Your task to perform on an android device: add a contact Image 0: 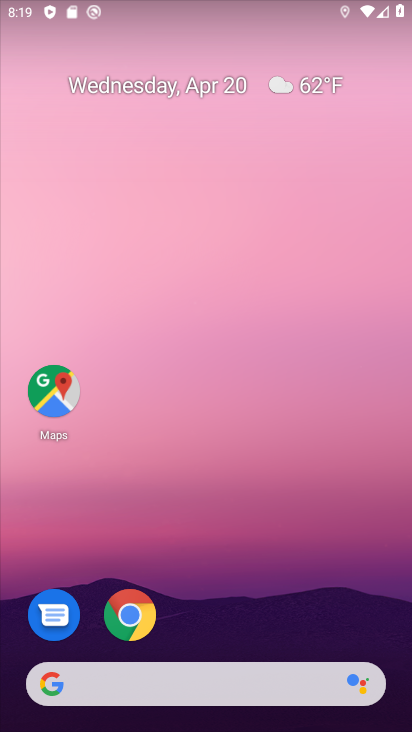
Step 0: drag from (251, 692) to (224, 136)
Your task to perform on an android device: add a contact Image 1: 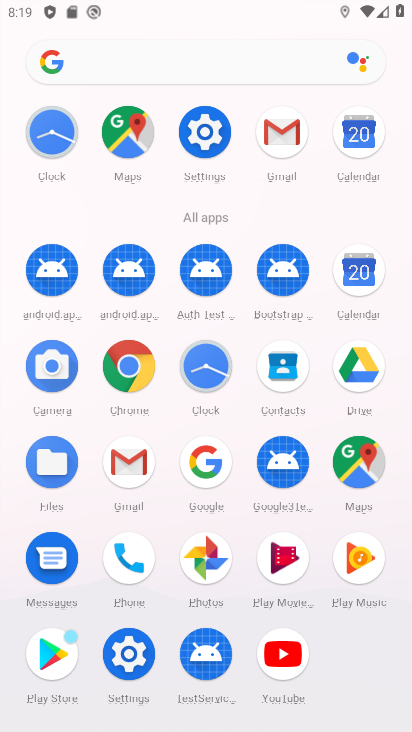
Step 1: drag from (275, 635) to (351, 348)
Your task to perform on an android device: add a contact Image 2: 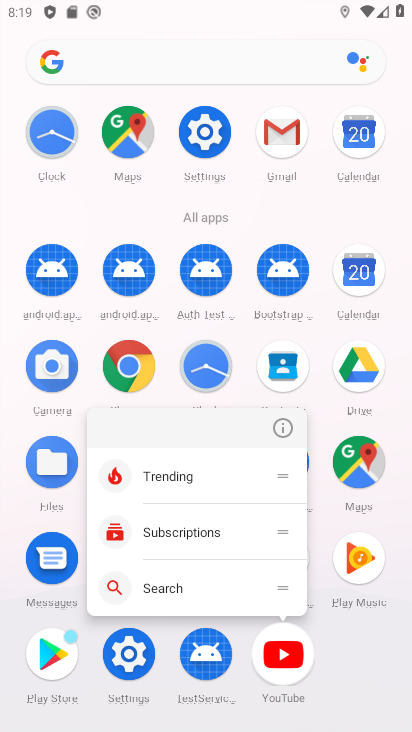
Step 2: click (300, 356)
Your task to perform on an android device: add a contact Image 3: 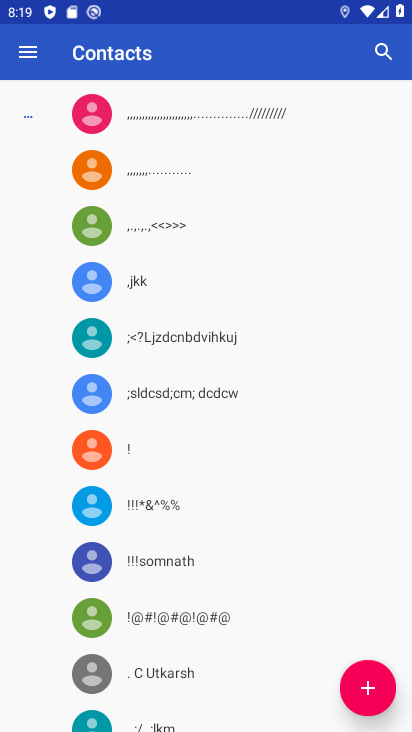
Step 3: click (354, 694)
Your task to perform on an android device: add a contact Image 4: 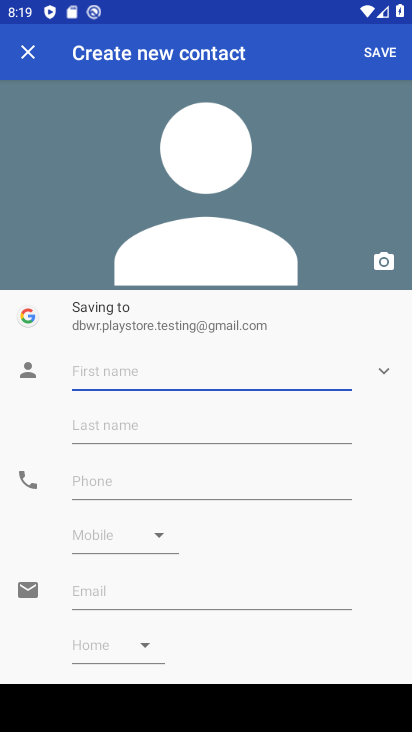
Step 4: type "rdf"
Your task to perform on an android device: add a contact Image 5: 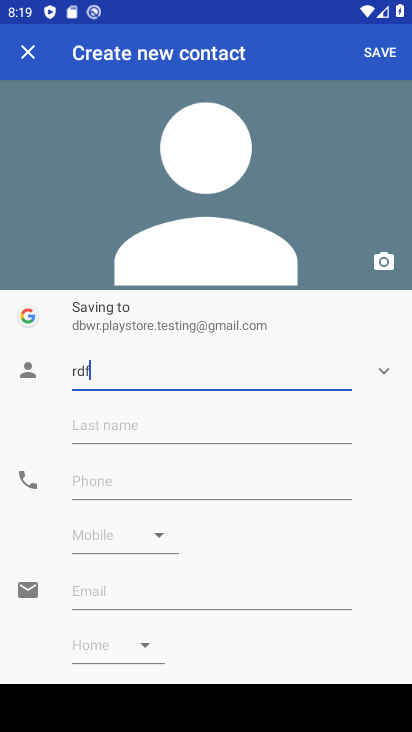
Step 5: type ""
Your task to perform on an android device: add a contact Image 6: 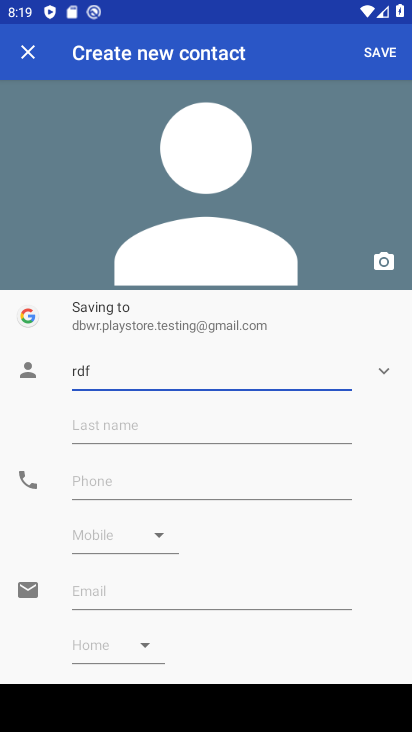
Step 6: click (269, 437)
Your task to perform on an android device: add a contact Image 7: 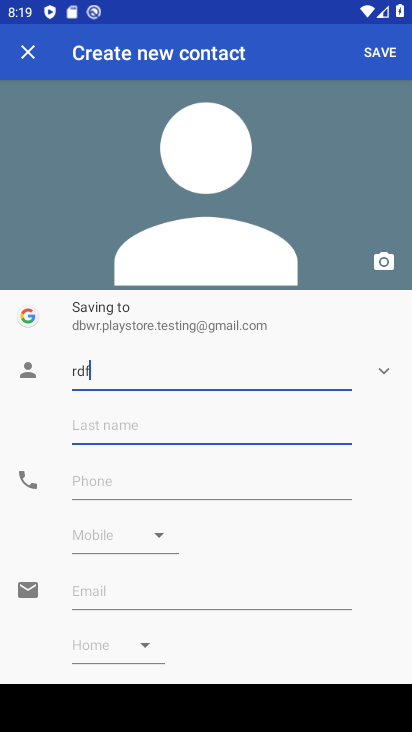
Step 7: click (272, 425)
Your task to perform on an android device: add a contact Image 8: 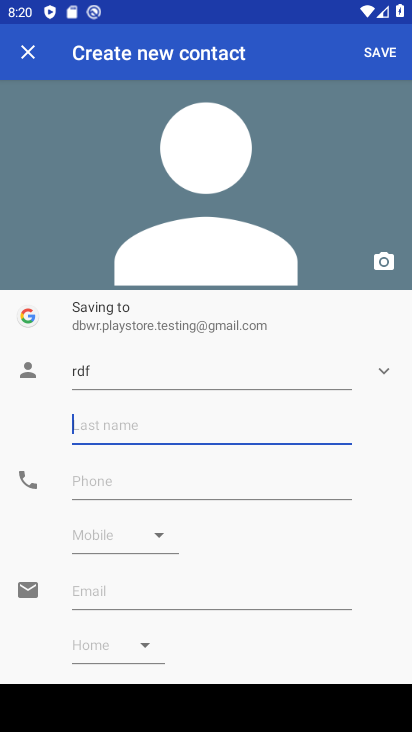
Step 8: type "ded"
Your task to perform on an android device: add a contact Image 9: 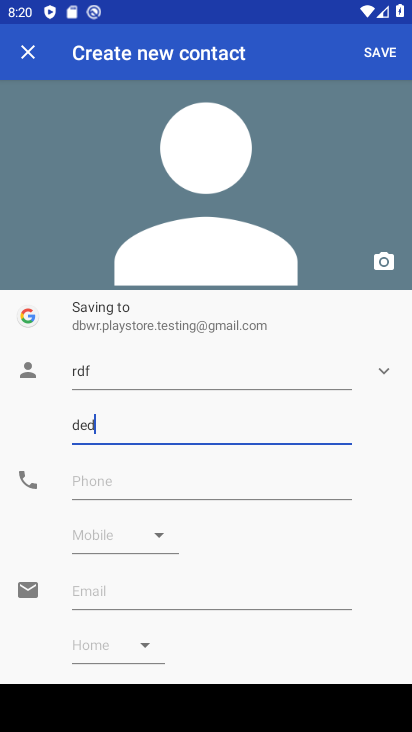
Step 9: type ""
Your task to perform on an android device: add a contact Image 10: 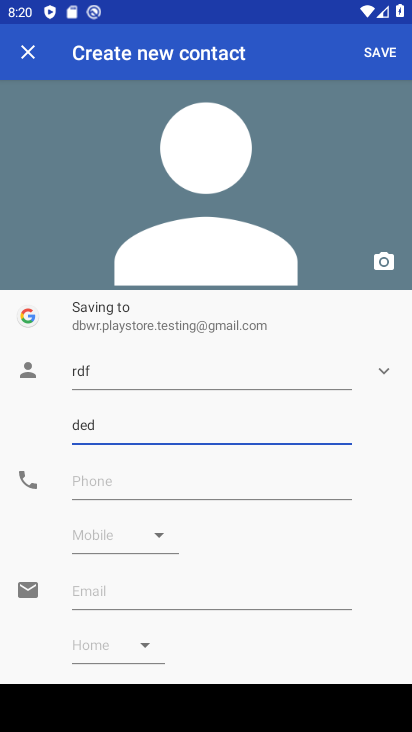
Step 10: click (266, 481)
Your task to perform on an android device: add a contact Image 11: 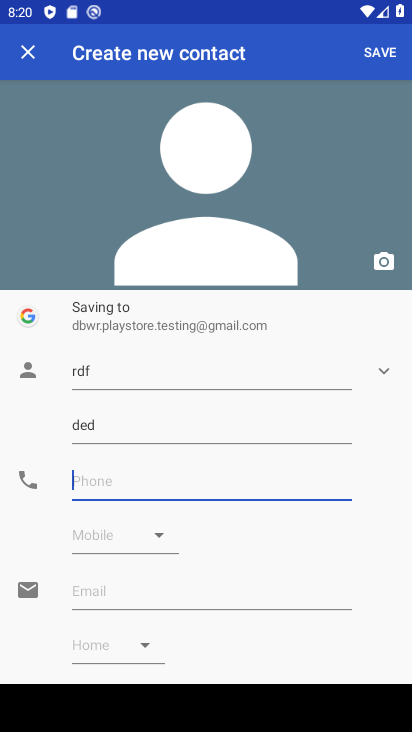
Step 11: type "43232245"
Your task to perform on an android device: add a contact Image 12: 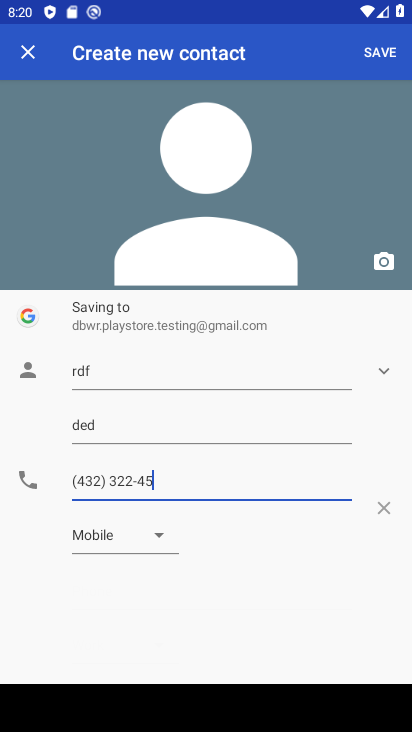
Step 12: type ""
Your task to perform on an android device: add a contact Image 13: 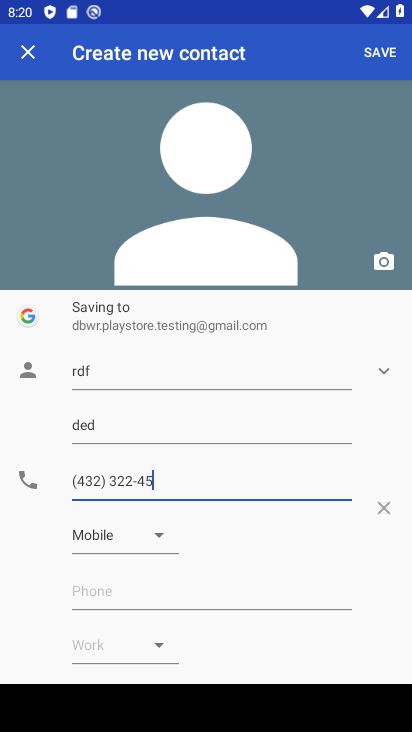
Step 13: click (391, 53)
Your task to perform on an android device: add a contact Image 14: 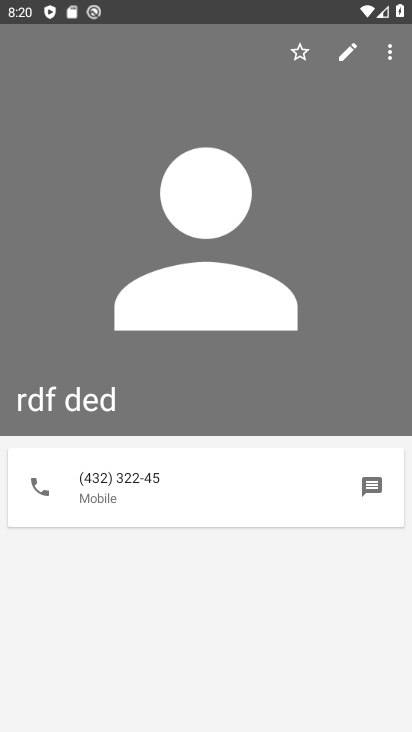
Step 14: task complete